Your task to perform on an android device: Is it going to rain today? Image 0: 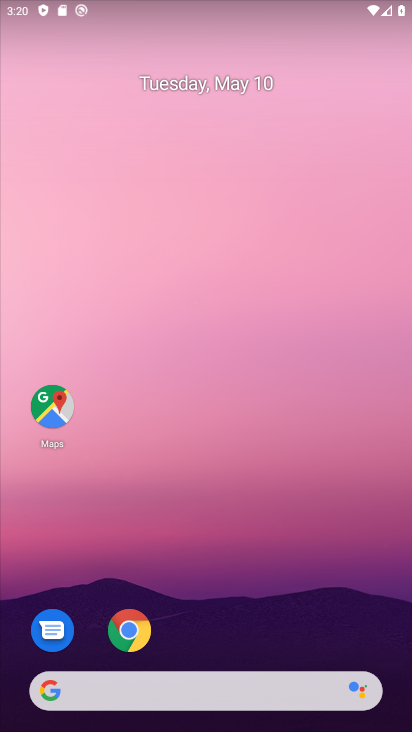
Step 0: click (152, 697)
Your task to perform on an android device: Is it going to rain today? Image 1: 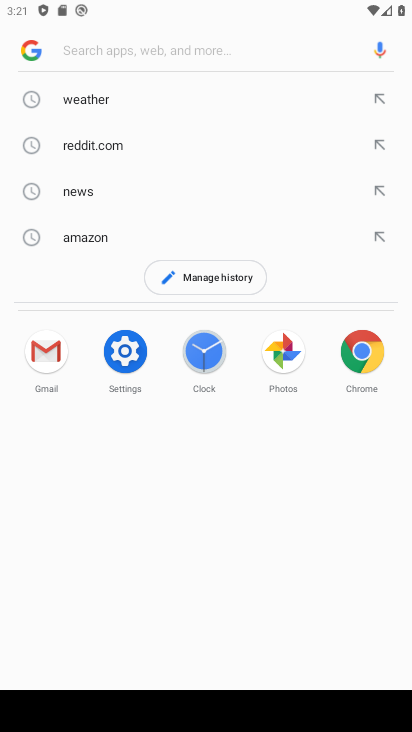
Step 1: click (140, 90)
Your task to perform on an android device: Is it going to rain today? Image 2: 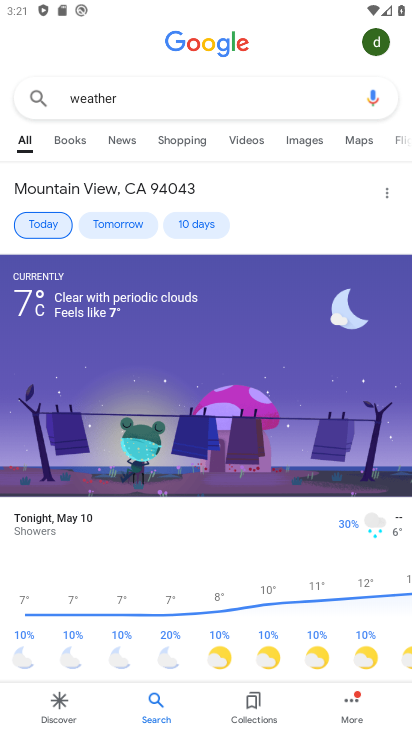
Step 2: task complete